Your task to perform on an android device: Open Wikipedia Image 0: 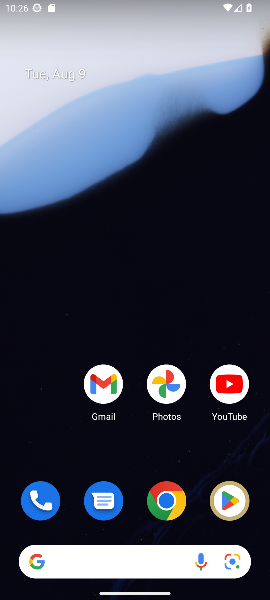
Step 0: click (163, 506)
Your task to perform on an android device: Open Wikipedia Image 1: 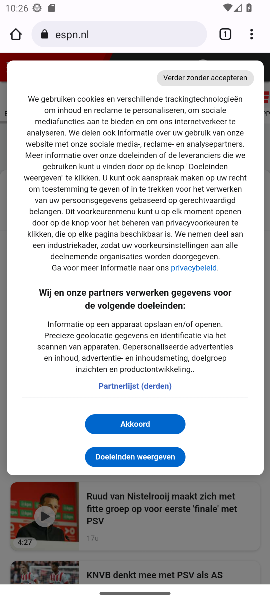
Step 1: click (80, 27)
Your task to perform on an android device: Open Wikipedia Image 2: 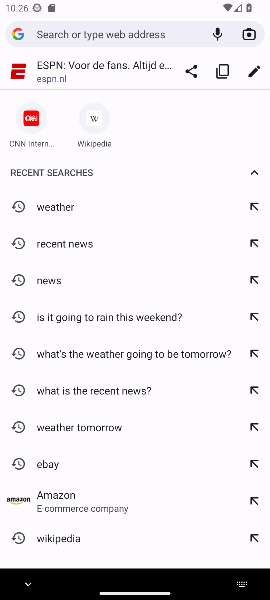
Step 2: type "Wikipedia"
Your task to perform on an android device: Open Wikipedia Image 3: 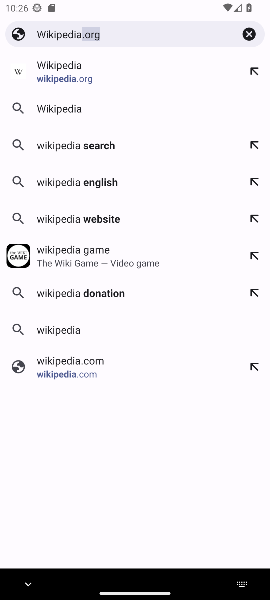
Step 3: click (53, 70)
Your task to perform on an android device: Open Wikipedia Image 4: 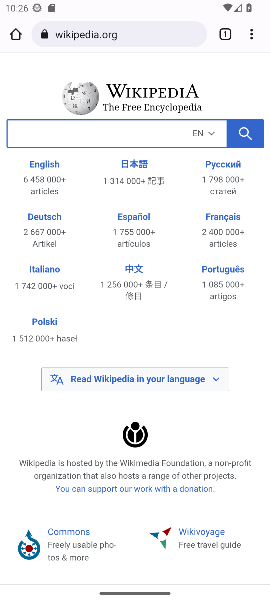
Step 4: task complete